Your task to perform on an android device: Open eBay Image 0: 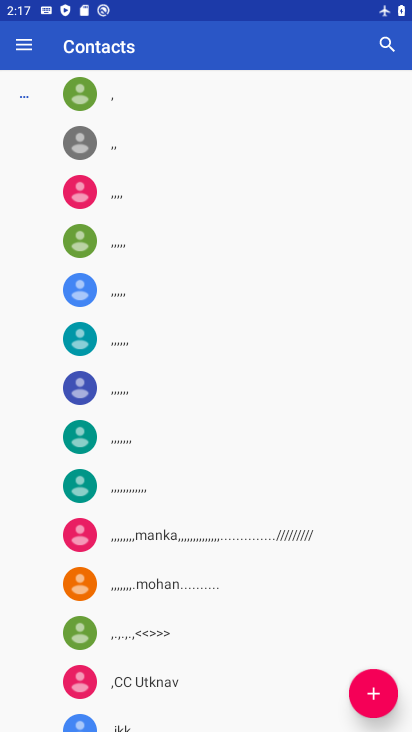
Step 0: press home button
Your task to perform on an android device: Open eBay Image 1: 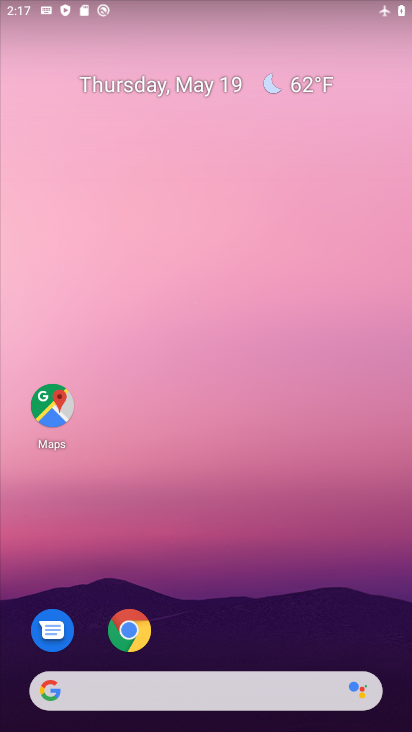
Step 1: drag from (316, 566) to (232, 107)
Your task to perform on an android device: Open eBay Image 2: 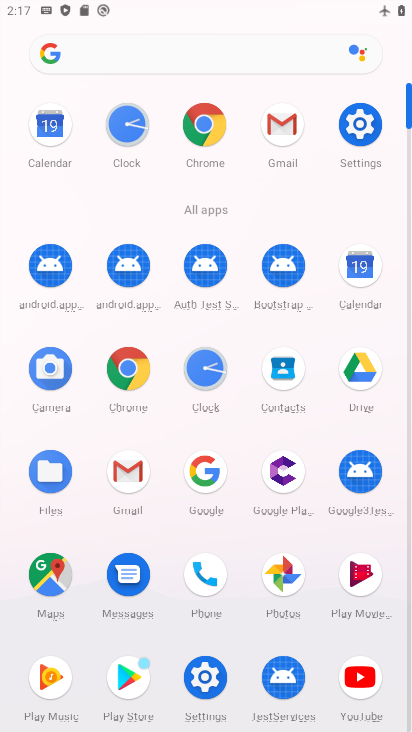
Step 2: click (121, 367)
Your task to perform on an android device: Open eBay Image 3: 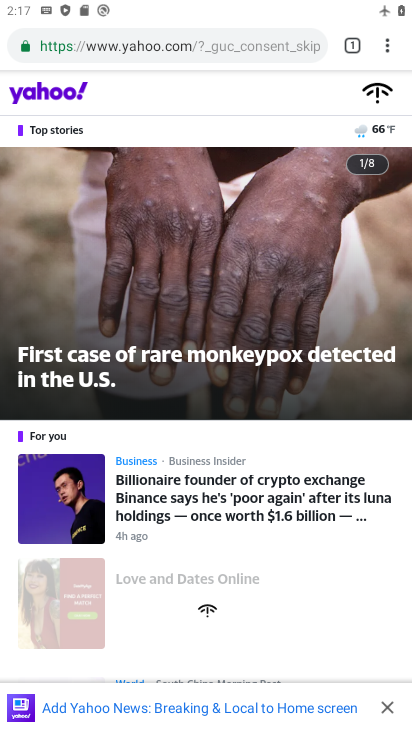
Step 3: click (203, 36)
Your task to perform on an android device: Open eBay Image 4: 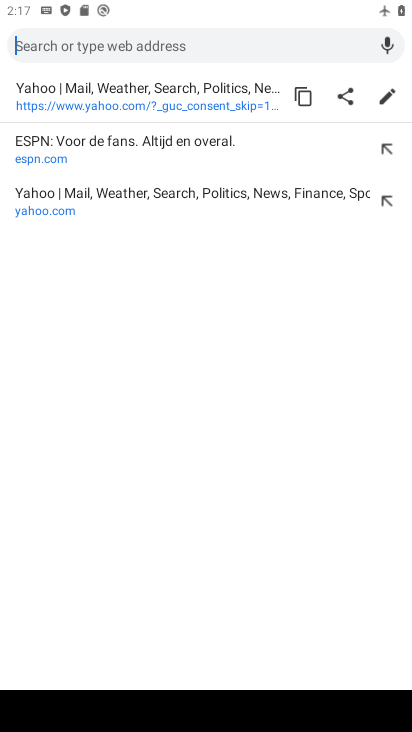
Step 4: type "ebay"
Your task to perform on an android device: Open eBay Image 5: 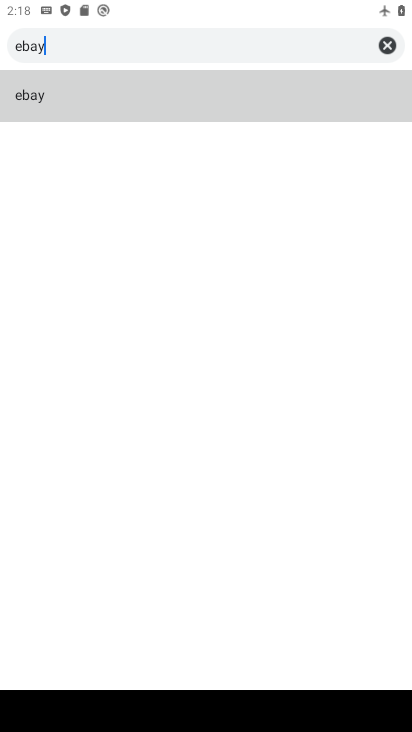
Step 5: click (277, 112)
Your task to perform on an android device: Open eBay Image 6: 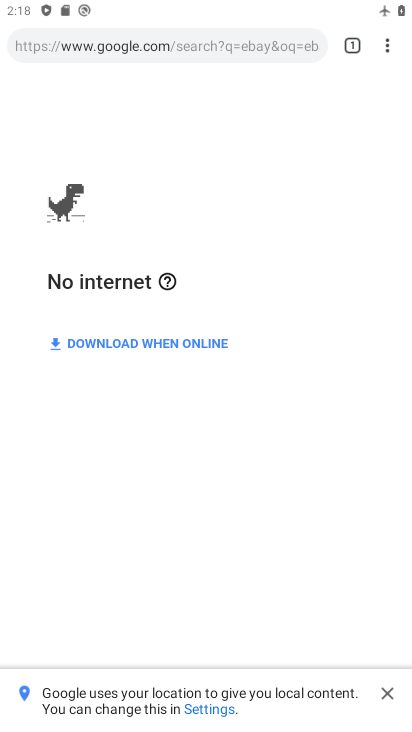
Step 6: task complete